Your task to perform on an android device: star an email in the gmail app Image 0: 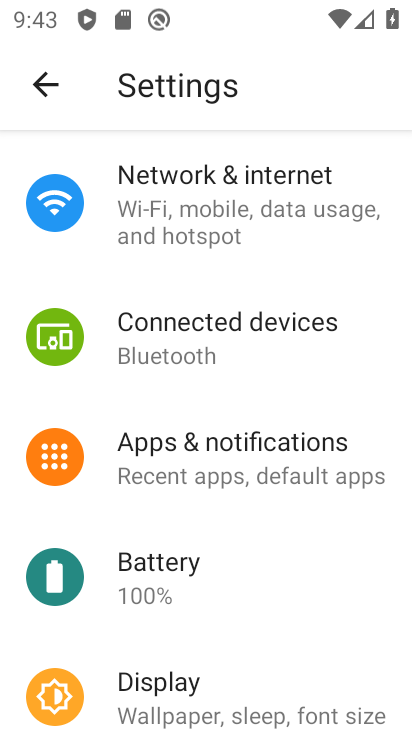
Step 0: press home button
Your task to perform on an android device: star an email in the gmail app Image 1: 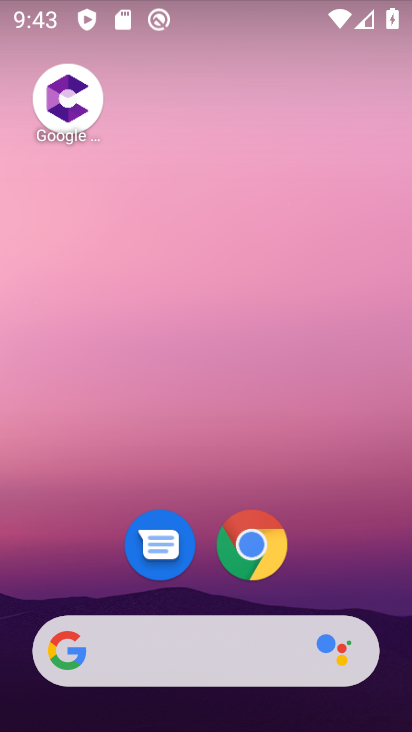
Step 1: drag from (232, 470) to (250, 19)
Your task to perform on an android device: star an email in the gmail app Image 2: 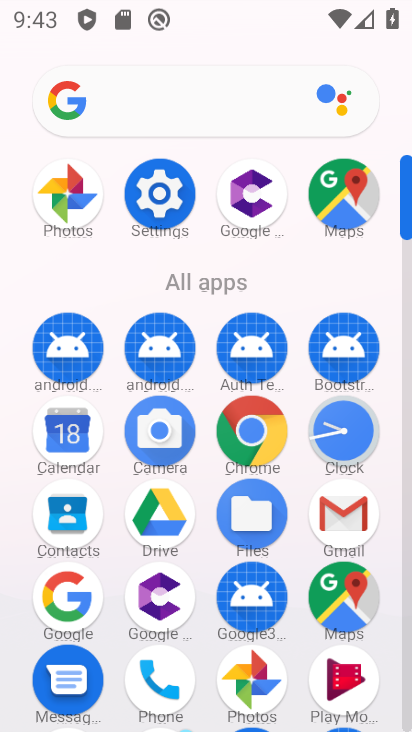
Step 2: click (326, 507)
Your task to perform on an android device: star an email in the gmail app Image 3: 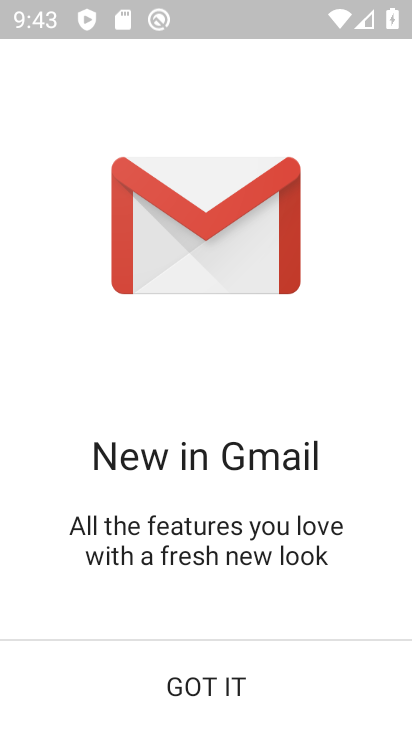
Step 3: click (241, 674)
Your task to perform on an android device: star an email in the gmail app Image 4: 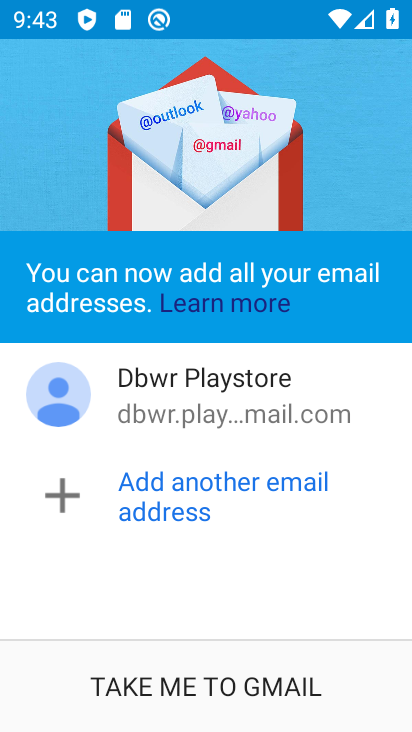
Step 4: click (241, 674)
Your task to perform on an android device: star an email in the gmail app Image 5: 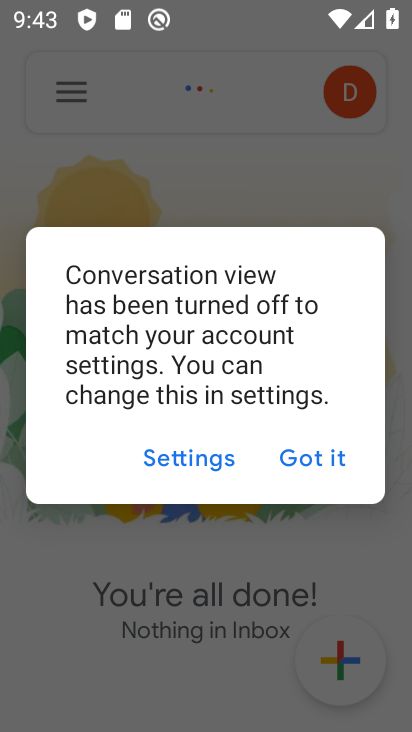
Step 5: click (292, 441)
Your task to perform on an android device: star an email in the gmail app Image 6: 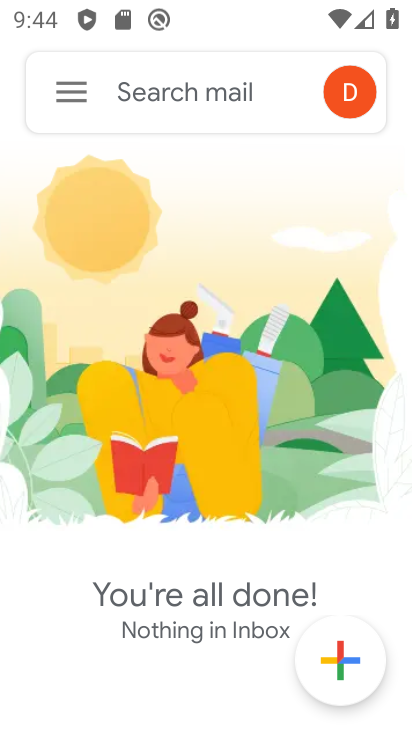
Step 6: click (70, 87)
Your task to perform on an android device: star an email in the gmail app Image 7: 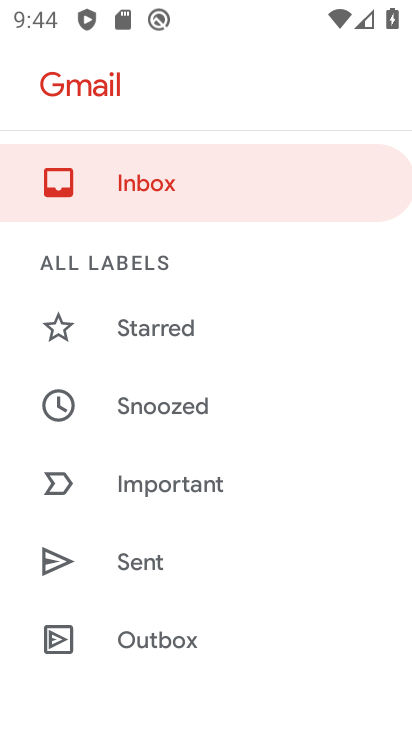
Step 7: drag from (214, 538) to (210, 152)
Your task to perform on an android device: star an email in the gmail app Image 8: 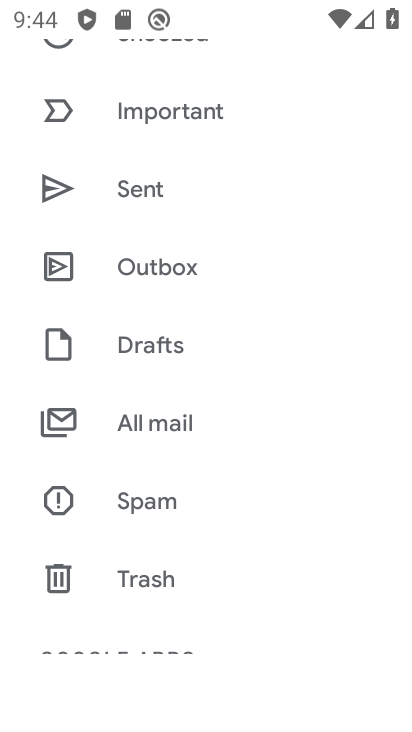
Step 8: click (210, 421)
Your task to perform on an android device: star an email in the gmail app Image 9: 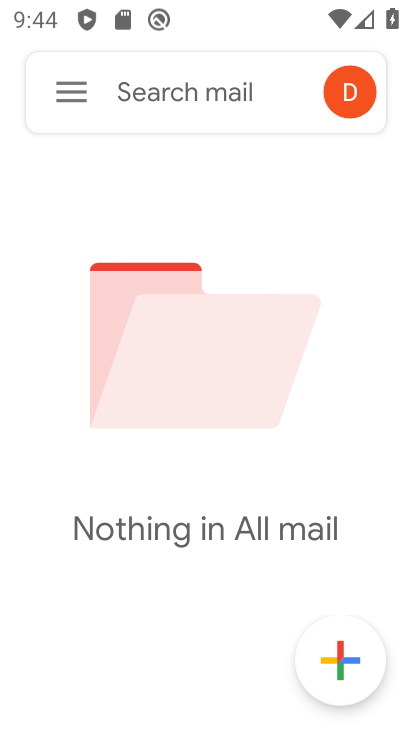
Step 9: task complete